Your task to perform on an android device: check google app version Image 0: 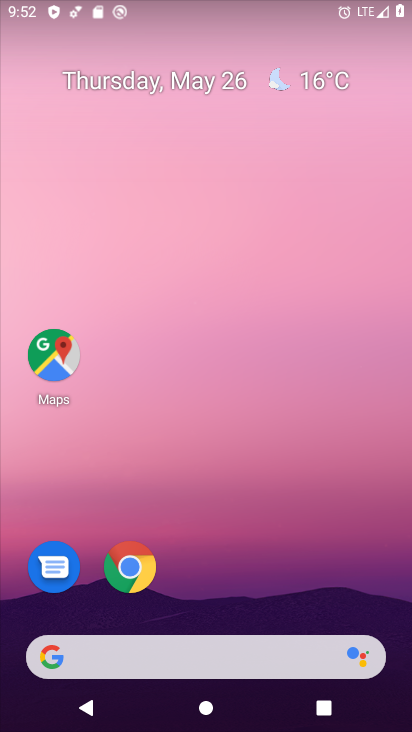
Step 0: drag from (396, 711) to (292, 43)
Your task to perform on an android device: check google app version Image 1: 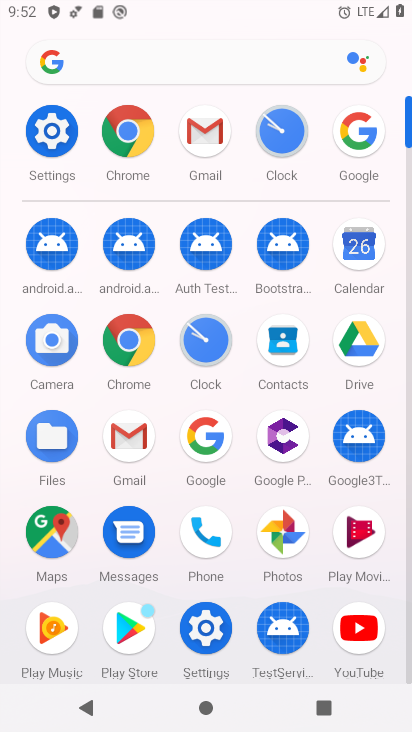
Step 1: click (196, 437)
Your task to perform on an android device: check google app version Image 2: 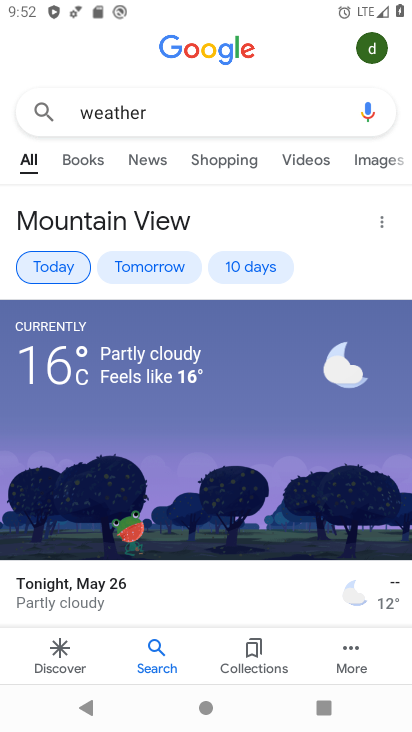
Step 2: click (348, 656)
Your task to perform on an android device: check google app version Image 3: 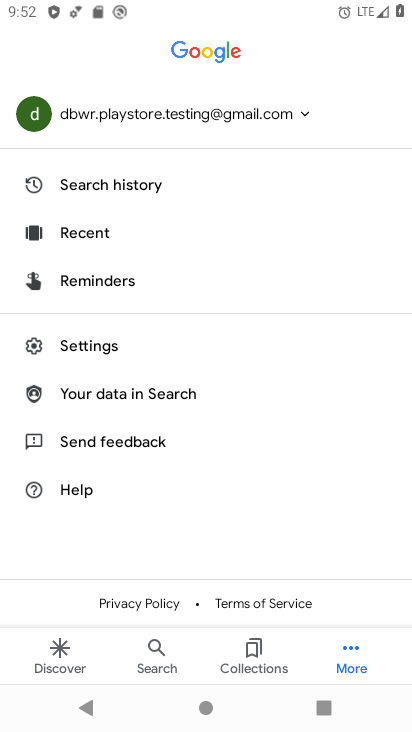
Step 3: click (76, 344)
Your task to perform on an android device: check google app version Image 4: 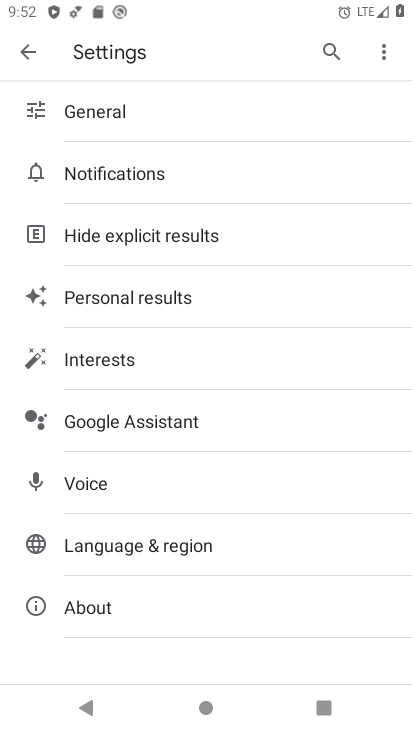
Step 4: click (88, 595)
Your task to perform on an android device: check google app version Image 5: 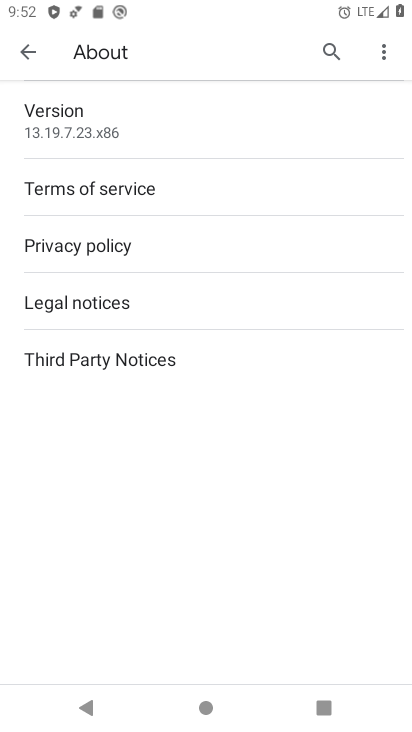
Step 5: drag from (249, 549) to (271, 232)
Your task to perform on an android device: check google app version Image 6: 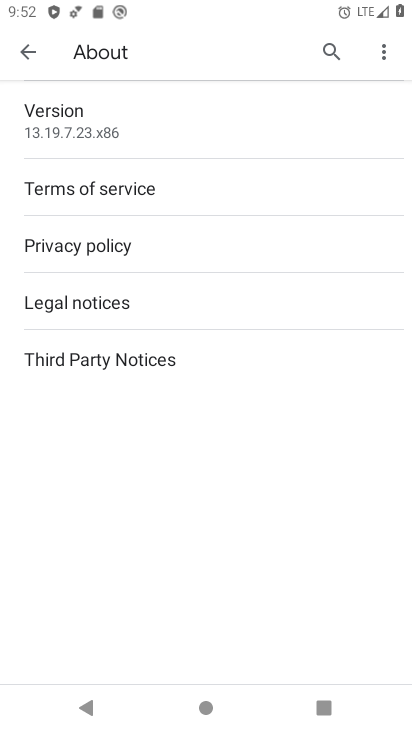
Step 6: click (101, 117)
Your task to perform on an android device: check google app version Image 7: 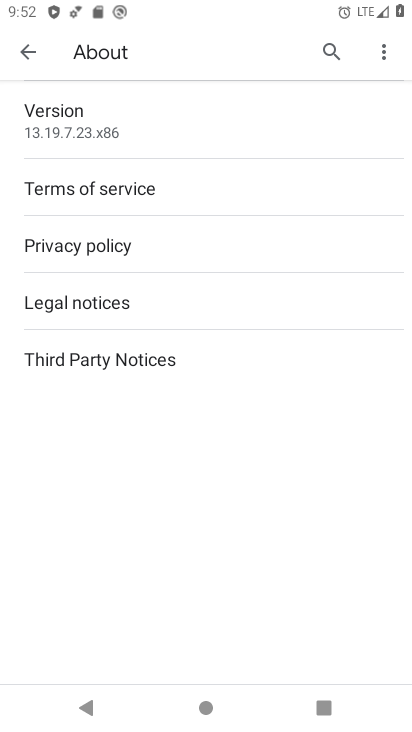
Step 7: task complete